Your task to perform on an android device: Do I have any events this weekend? Image 0: 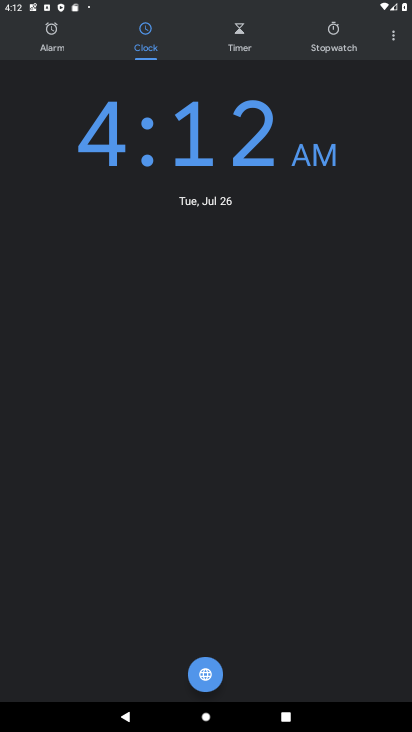
Step 0: press home button
Your task to perform on an android device: Do I have any events this weekend? Image 1: 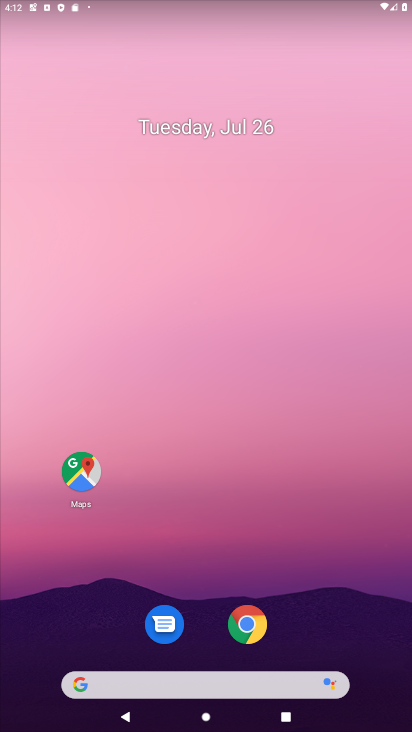
Step 1: drag from (289, 678) to (339, 117)
Your task to perform on an android device: Do I have any events this weekend? Image 2: 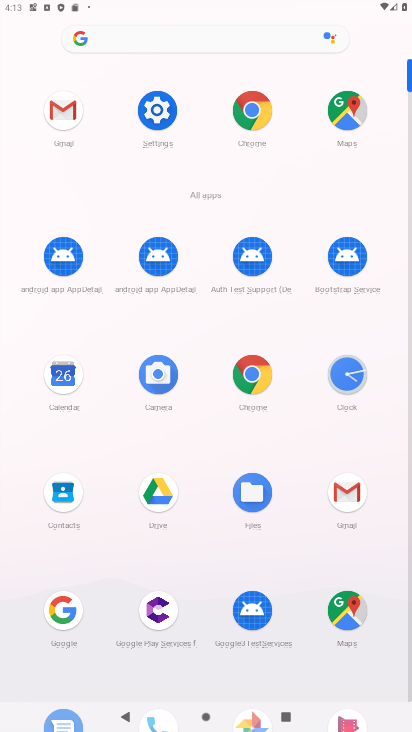
Step 2: click (71, 375)
Your task to perform on an android device: Do I have any events this weekend? Image 3: 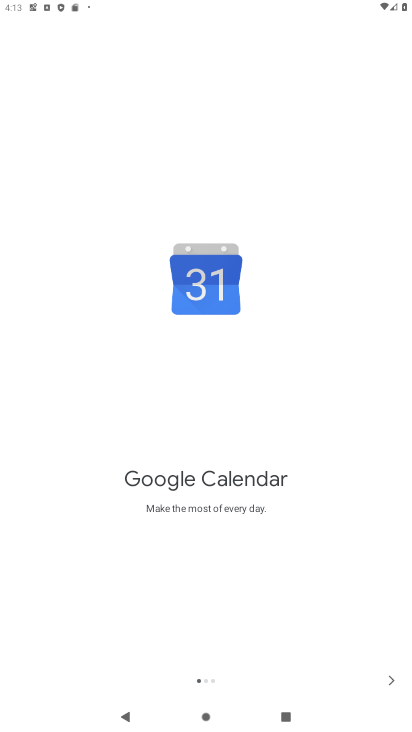
Step 3: click (385, 679)
Your task to perform on an android device: Do I have any events this weekend? Image 4: 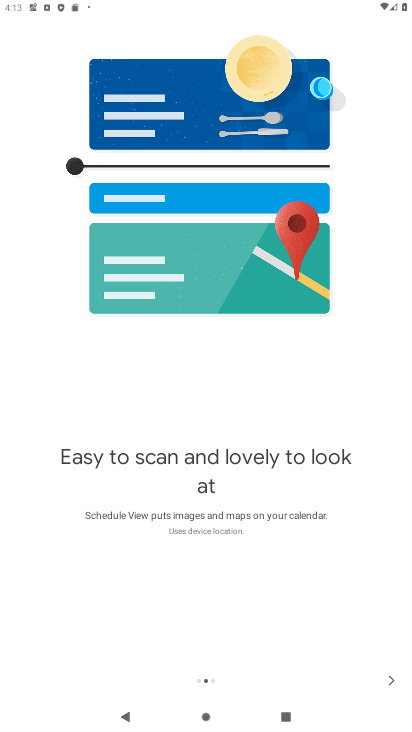
Step 4: click (385, 679)
Your task to perform on an android device: Do I have any events this weekend? Image 5: 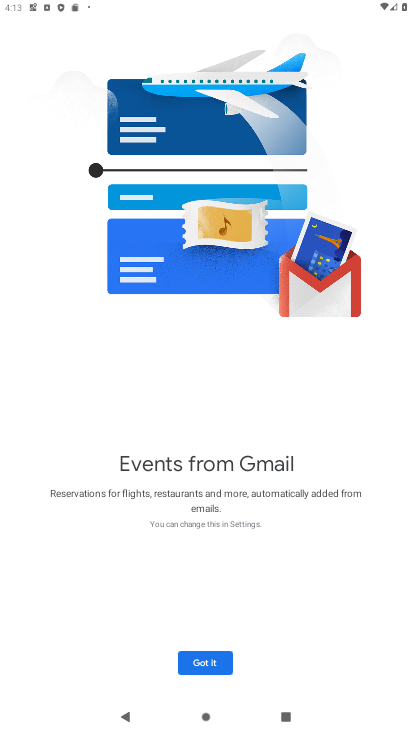
Step 5: click (211, 663)
Your task to perform on an android device: Do I have any events this weekend? Image 6: 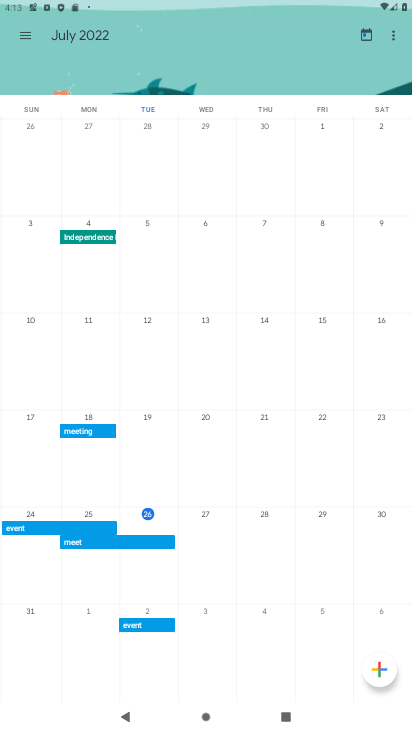
Step 6: click (386, 512)
Your task to perform on an android device: Do I have any events this weekend? Image 7: 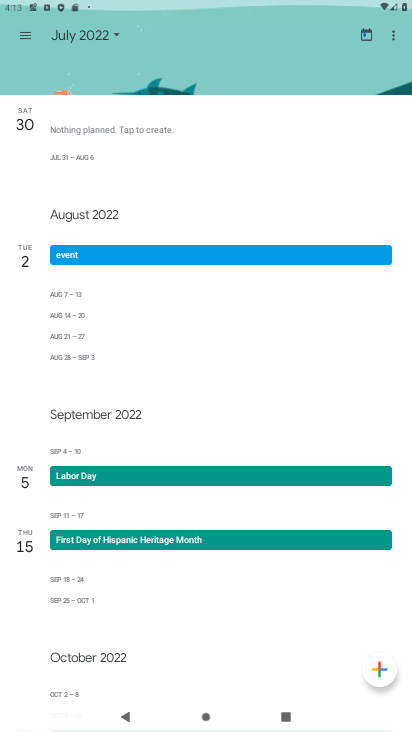
Step 7: task complete